Your task to perform on an android device: View the shopping cart on newegg.com. Add usb-b to the cart on newegg.com, then select checkout. Image 0: 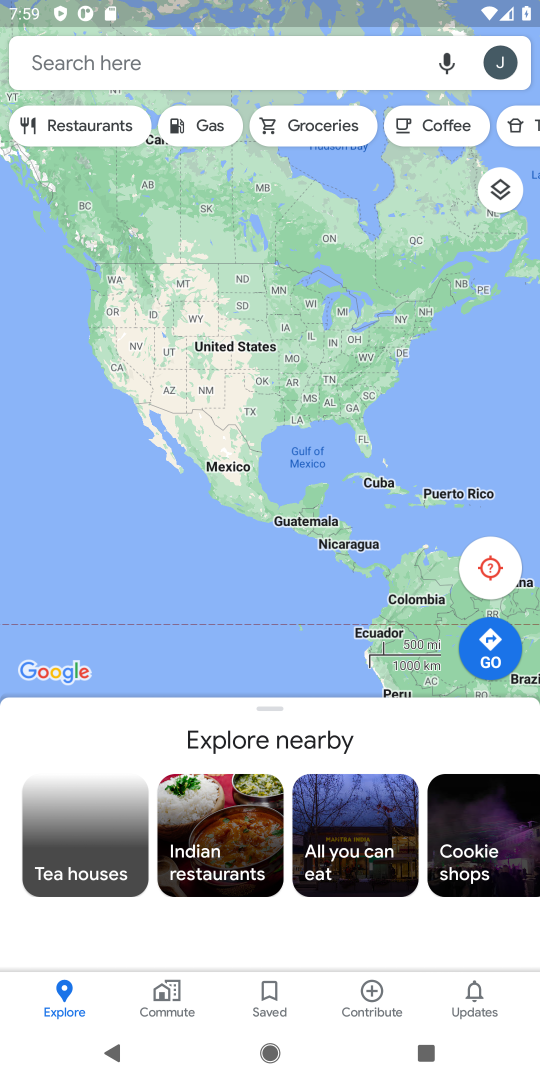
Step 0: press home button
Your task to perform on an android device: View the shopping cart on newegg.com. Add usb-b to the cart on newegg.com, then select checkout. Image 1: 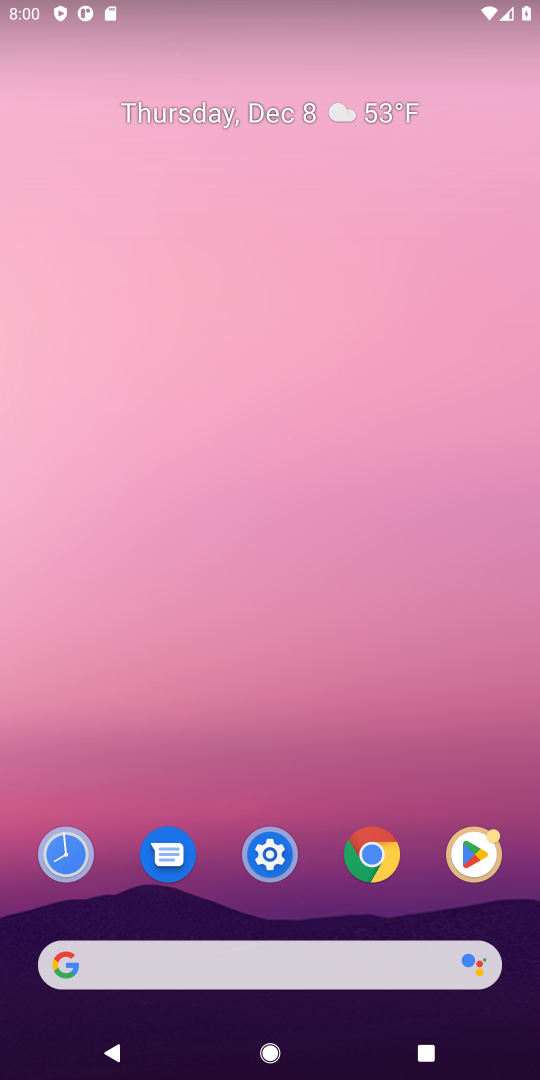
Step 1: click (99, 957)
Your task to perform on an android device: View the shopping cart on newegg.com. Add usb-b to the cart on newegg.com, then select checkout. Image 2: 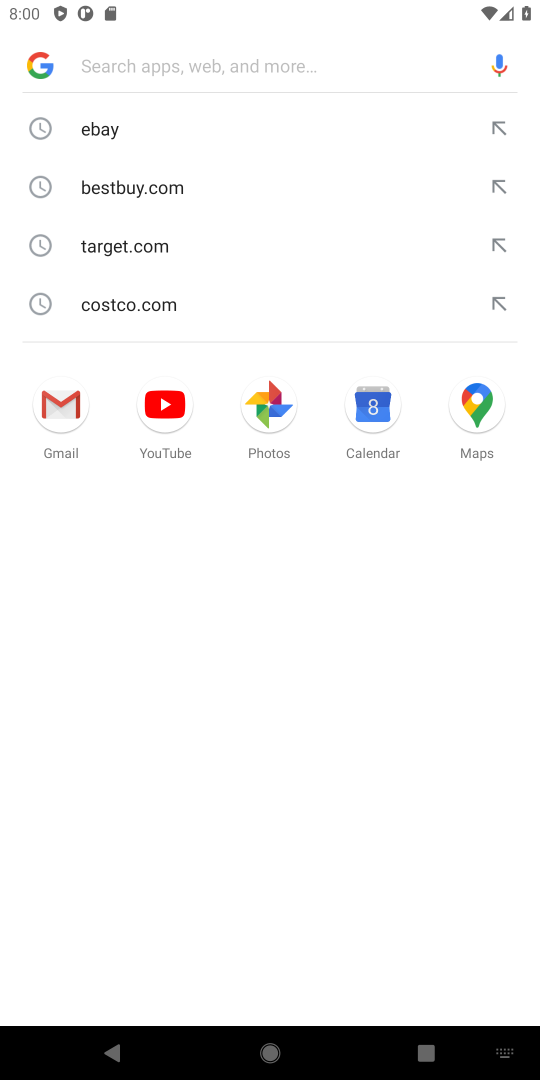
Step 2: type "newegg.com"
Your task to perform on an android device: View the shopping cart on newegg.com. Add usb-b to the cart on newegg.com, then select checkout. Image 3: 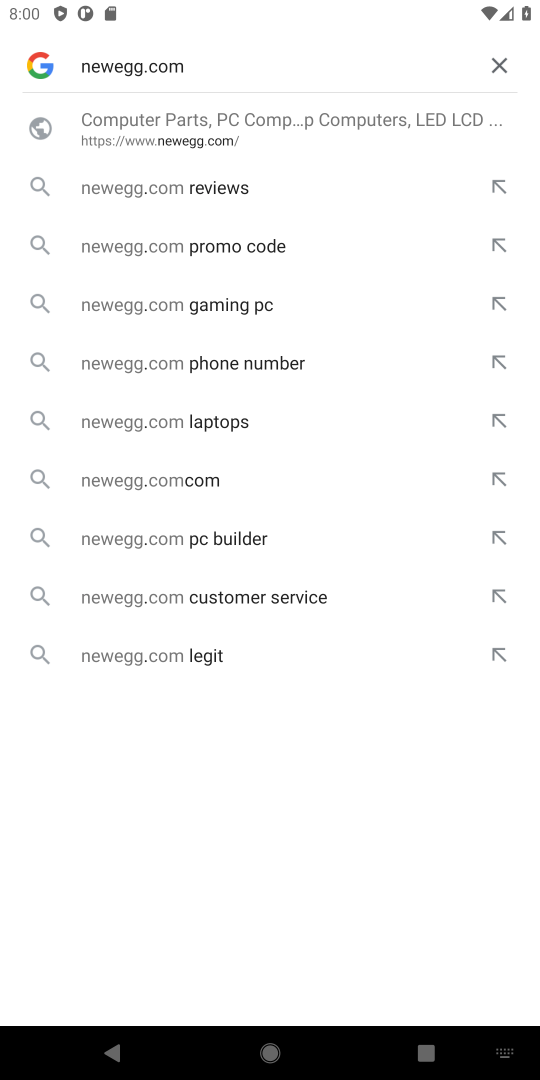
Step 3: press enter
Your task to perform on an android device: View the shopping cart on newegg.com. Add usb-b to the cart on newegg.com, then select checkout. Image 4: 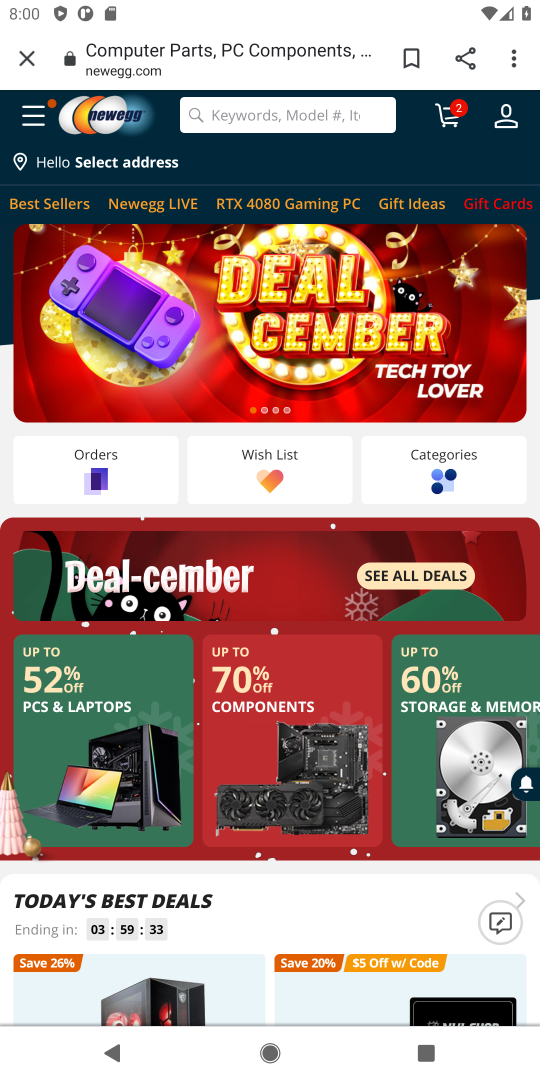
Step 4: click (442, 111)
Your task to perform on an android device: View the shopping cart on newegg.com. Add usb-b to the cart on newegg.com, then select checkout. Image 5: 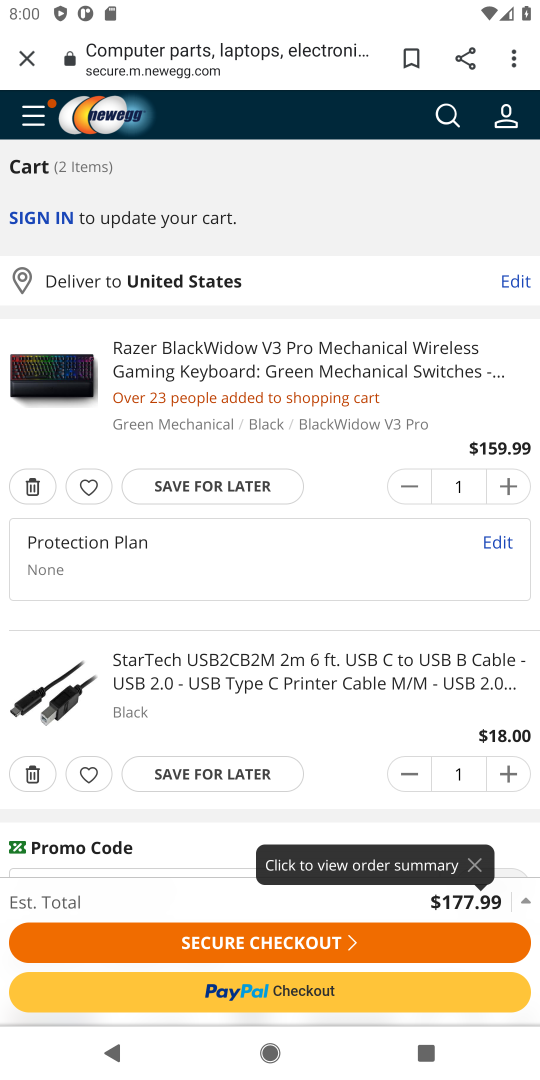
Step 5: click (433, 109)
Your task to perform on an android device: View the shopping cart on newegg.com. Add usb-b to the cart on newegg.com, then select checkout. Image 6: 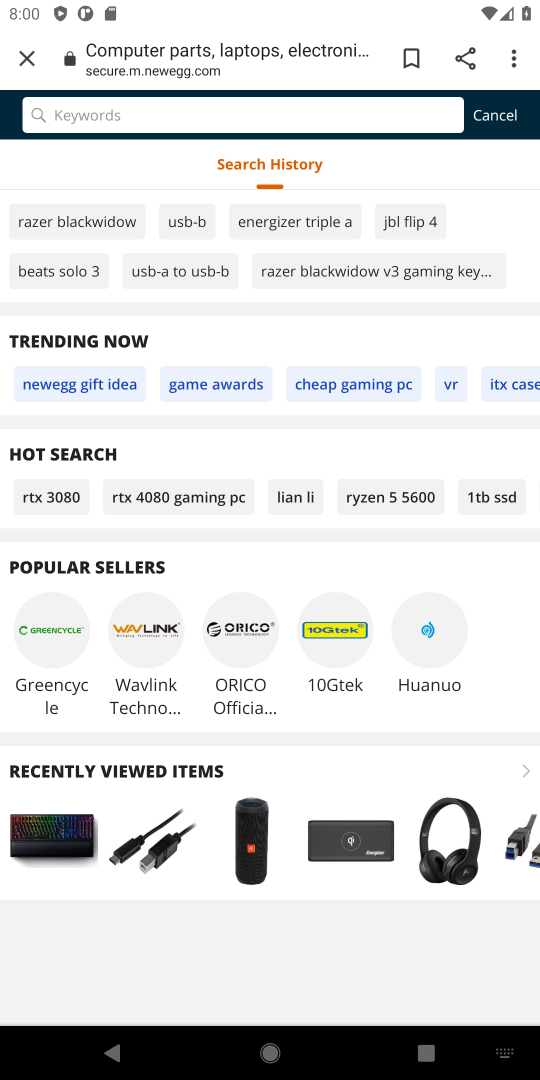
Step 6: type "usb-b "
Your task to perform on an android device: View the shopping cart on newegg.com. Add usb-b to the cart on newegg.com, then select checkout. Image 7: 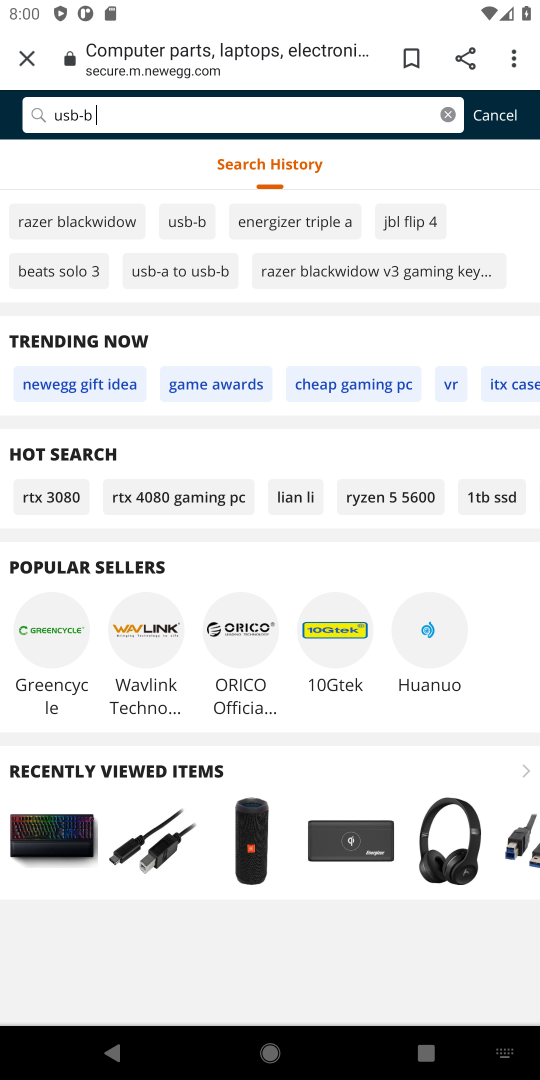
Step 7: press enter
Your task to perform on an android device: View the shopping cart on newegg.com. Add usb-b to the cart on newegg.com, then select checkout. Image 8: 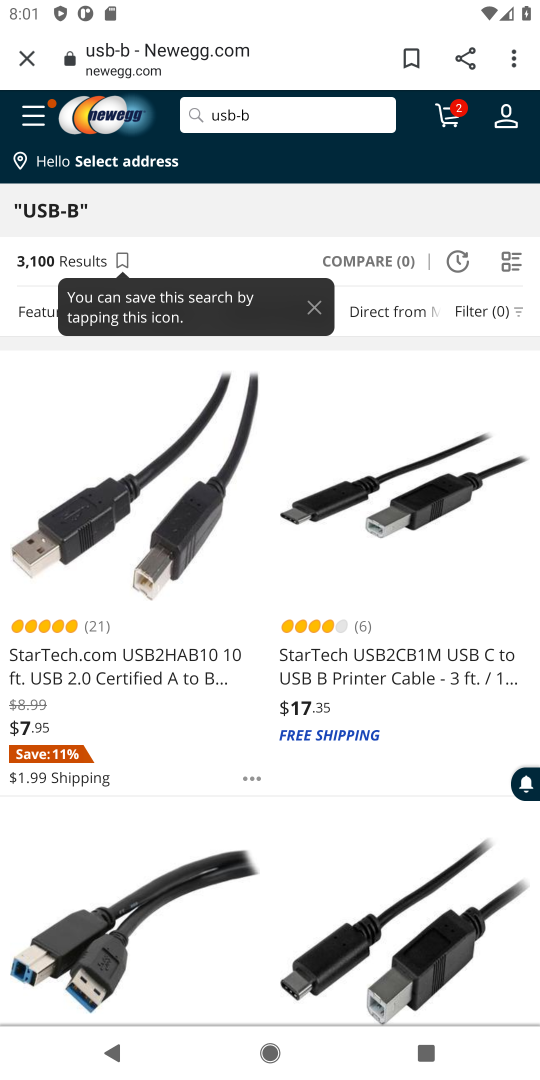
Step 8: task complete